Your task to perform on an android device: Is it going to rain today? Image 0: 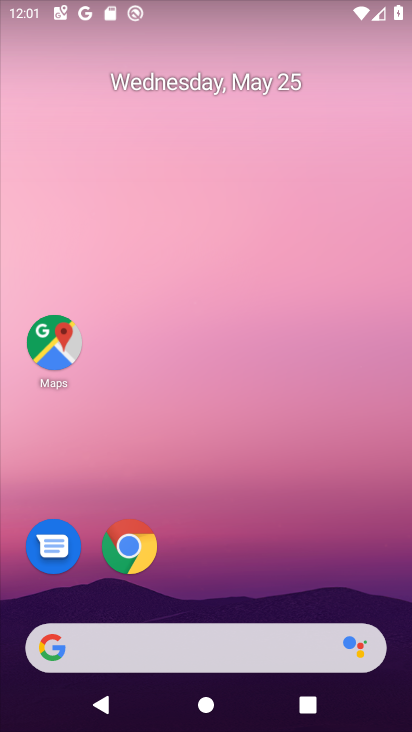
Step 0: click (196, 652)
Your task to perform on an android device: Is it going to rain today? Image 1: 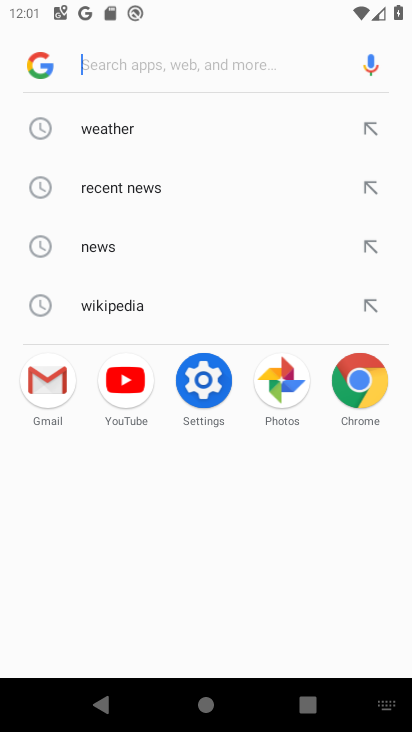
Step 1: click (126, 127)
Your task to perform on an android device: Is it going to rain today? Image 2: 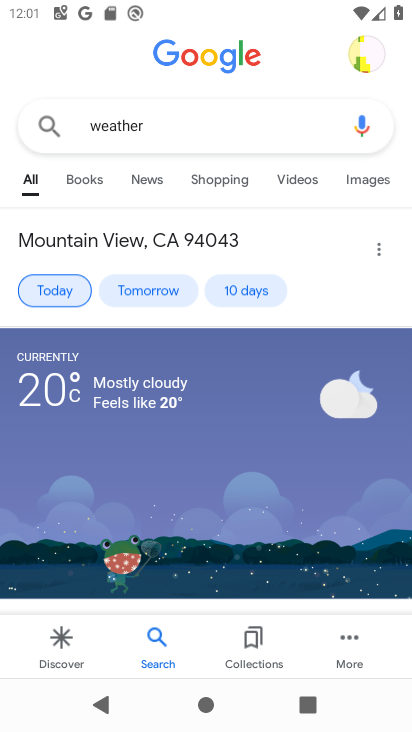
Step 2: task complete